Your task to perform on an android device: turn off translation in the chrome app Image 0: 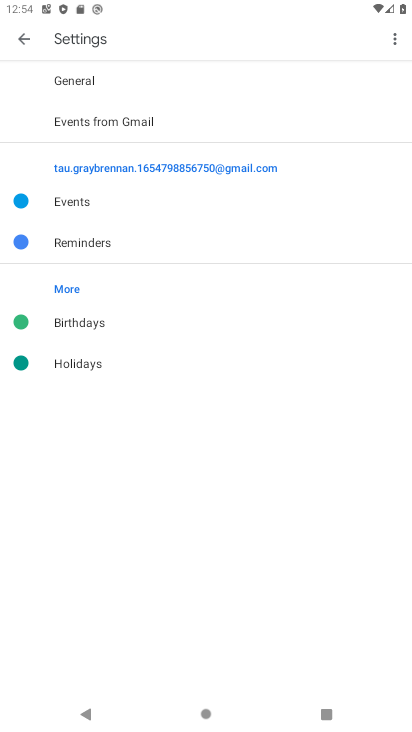
Step 0: press home button
Your task to perform on an android device: turn off translation in the chrome app Image 1: 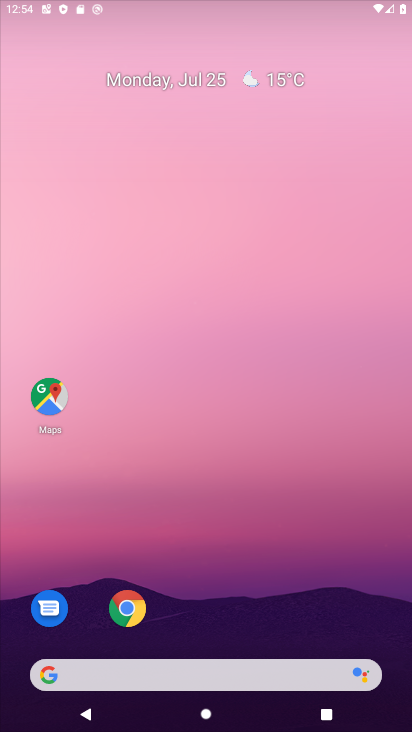
Step 1: drag from (155, 600) to (359, 144)
Your task to perform on an android device: turn off translation in the chrome app Image 2: 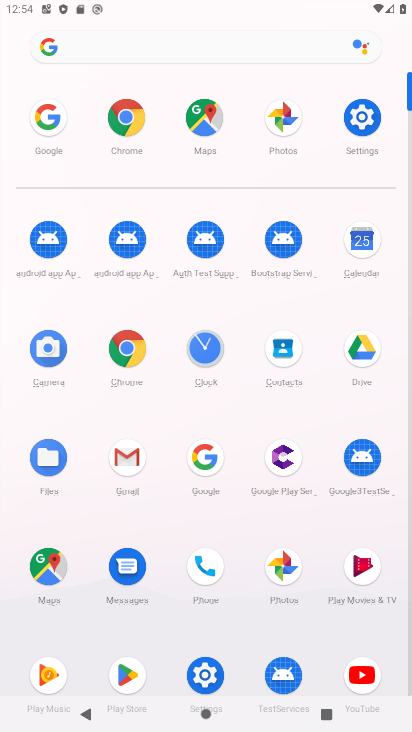
Step 2: click (129, 361)
Your task to perform on an android device: turn off translation in the chrome app Image 3: 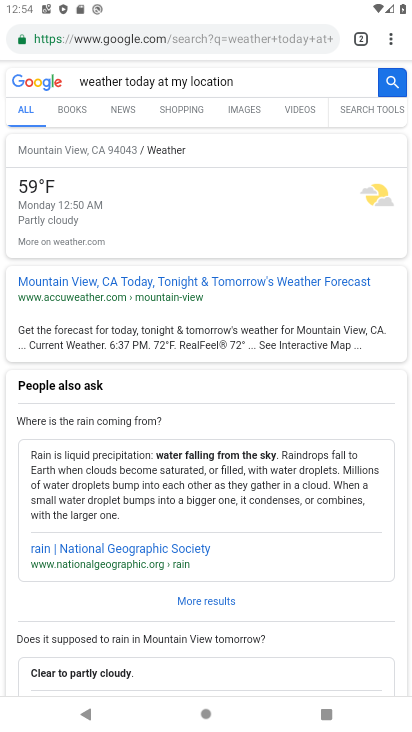
Step 3: click (392, 39)
Your task to perform on an android device: turn off translation in the chrome app Image 4: 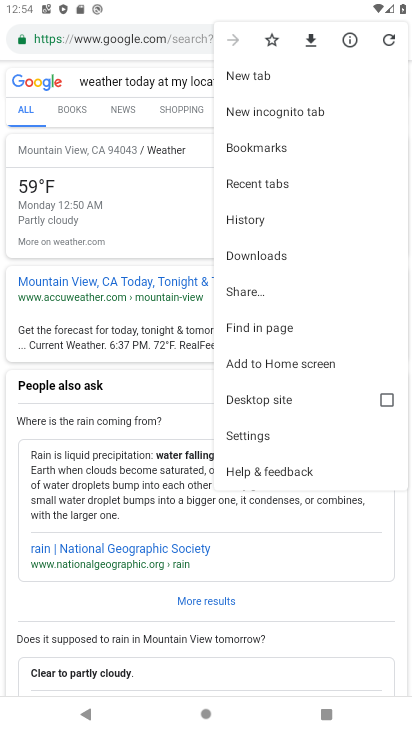
Step 4: click (250, 438)
Your task to perform on an android device: turn off translation in the chrome app Image 5: 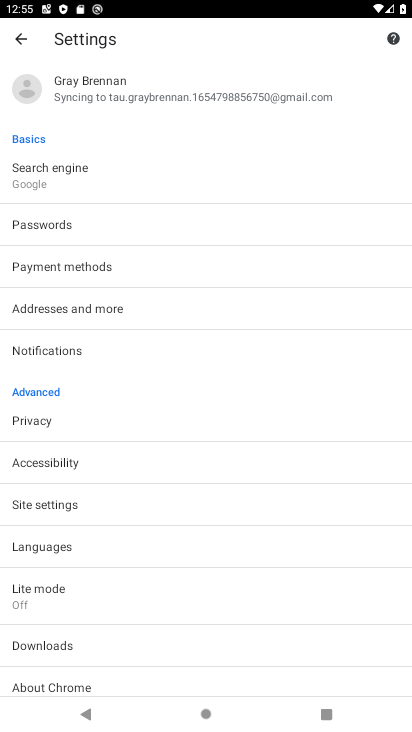
Step 5: click (72, 548)
Your task to perform on an android device: turn off translation in the chrome app Image 6: 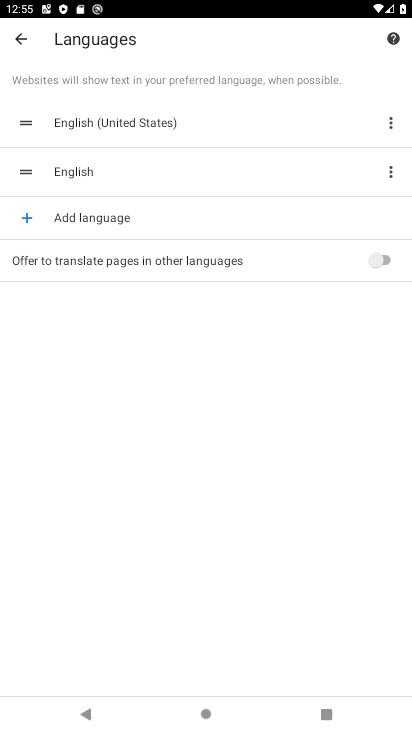
Step 6: task complete